Your task to perform on an android device: set the timer Image 0: 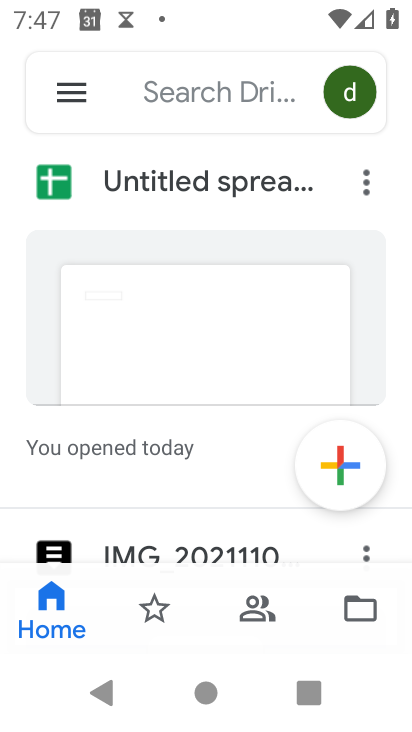
Step 0: press back button
Your task to perform on an android device: set the timer Image 1: 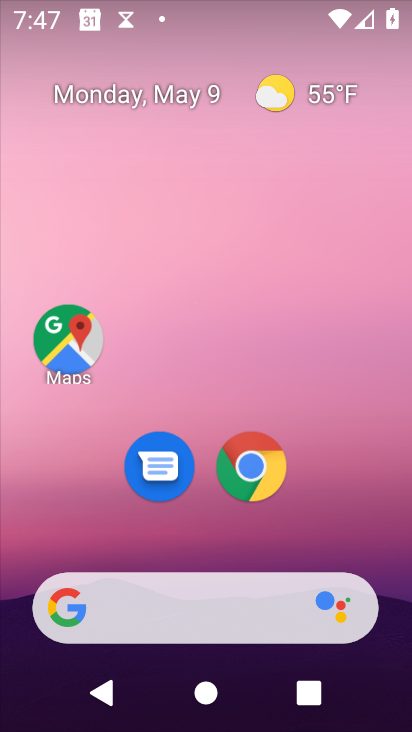
Step 1: drag from (372, 525) to (210, 133)
Your task to perform on an android device: set the timer Image 2: 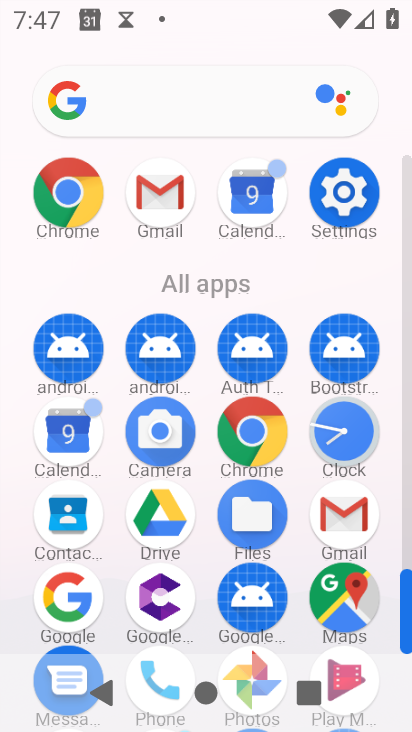
Step 2: click (335, 424)
Your task to perform on an android device: set the timer Image 3: 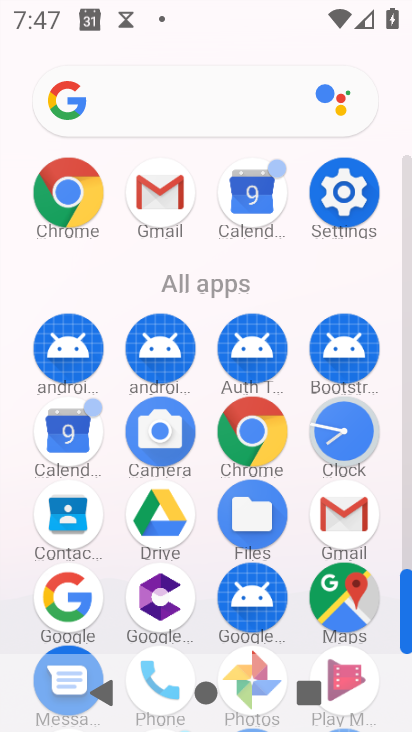
Step 3: click (335, 424)
Your task to perform on an android device: set the timer Image 4: 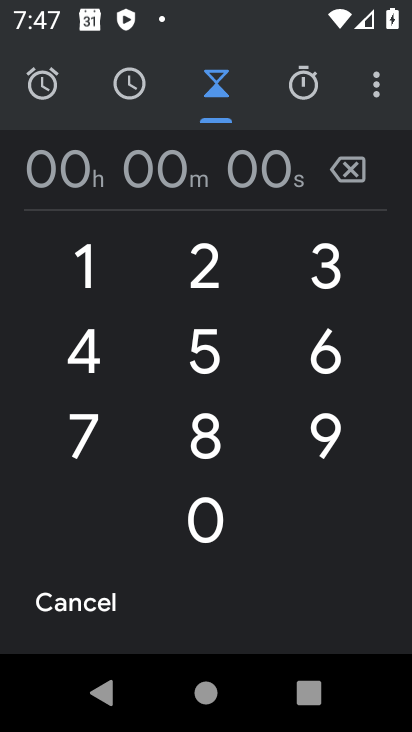
Step 4: click (205, 428)
Your task to perform on an android device: set the timer Image 5: 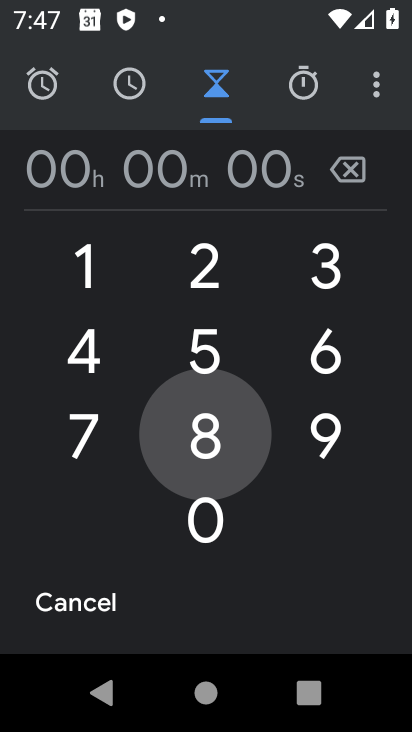
Step 5: click (205, 429)
Your task to perform on an android device: set the timer Image 6: 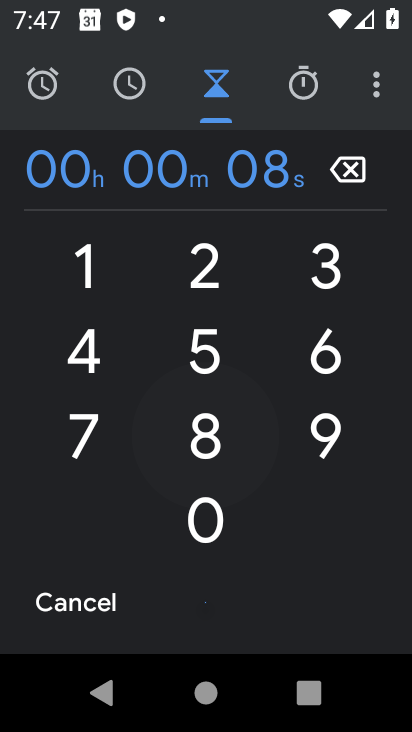
Step 6: click (205, 429)
Your task to perform on an android device: set the timer Image 7: 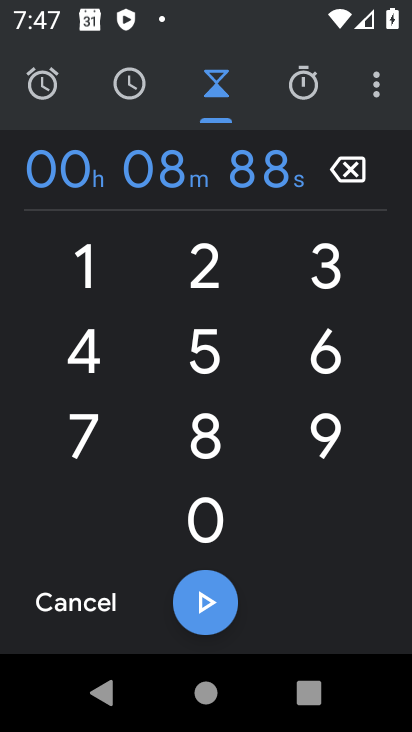
Step 7: click (199, 600)
Your task to perform on an android device: set the timer Image 8: 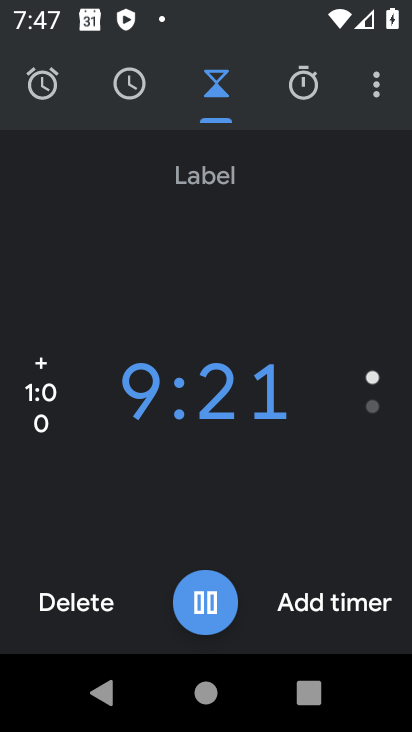
Step 8: click (198, 599)
Your task to perform on an android device: set the timer Image 9: 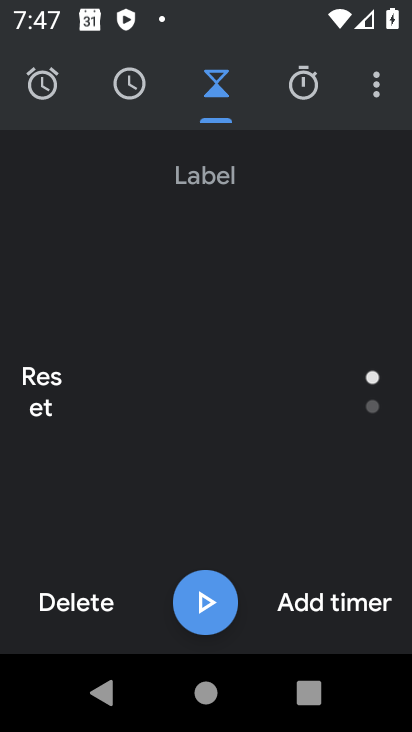
Step 9: click (319, 599)
Your task to perform on an android device: set the timer Image 10: 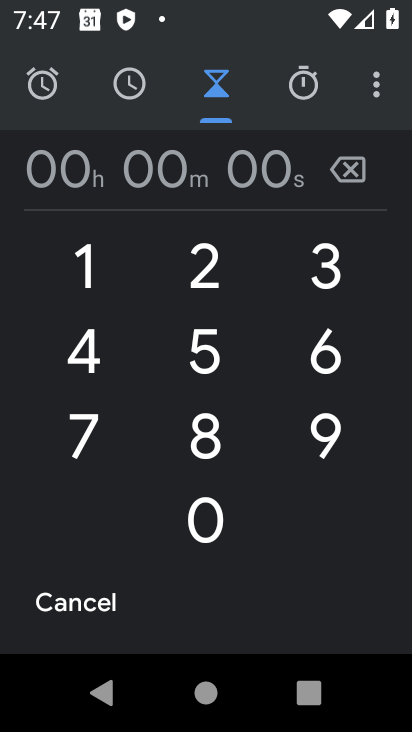
Step 10: task complete